Your task to perform on an android device: Search for sushi restaurants on Maps Image 0: 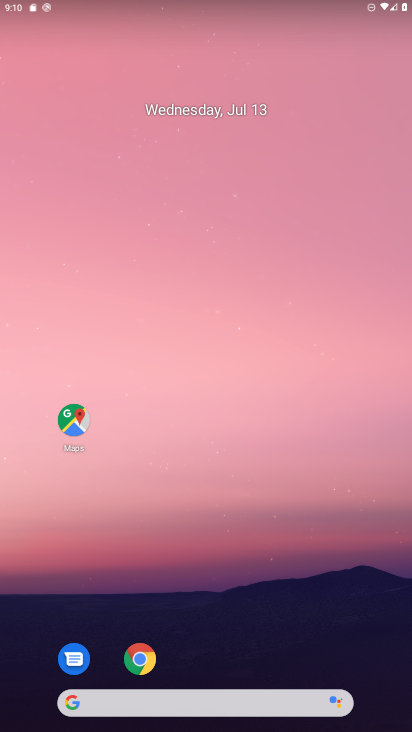
Step 0: drag from (203, 646) to (197, 157)
Your task to perform on an android device: Search for sushi restaurants on Maps Image 1: 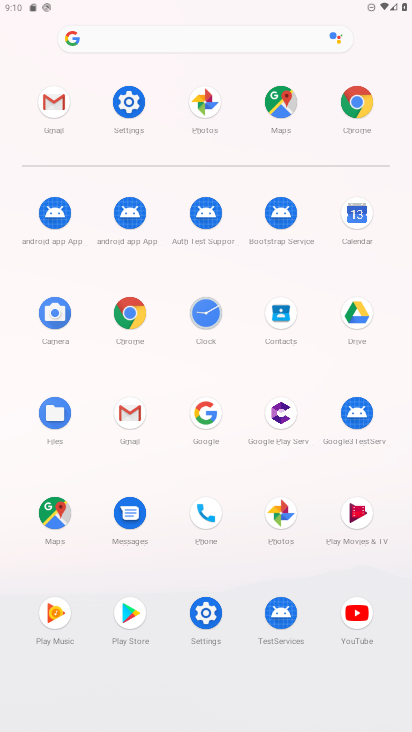
Step 1: click (54, 514)
Your task to perform on an android device: Search for sushi restaurants on Maps Image 2: 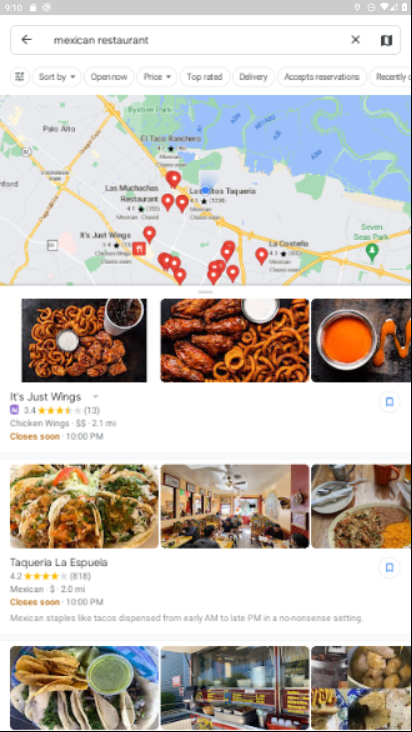
Step 2: click (246, 36)
Your task to perform on an android device: Search for sushi restaurants on Maps Image 3: 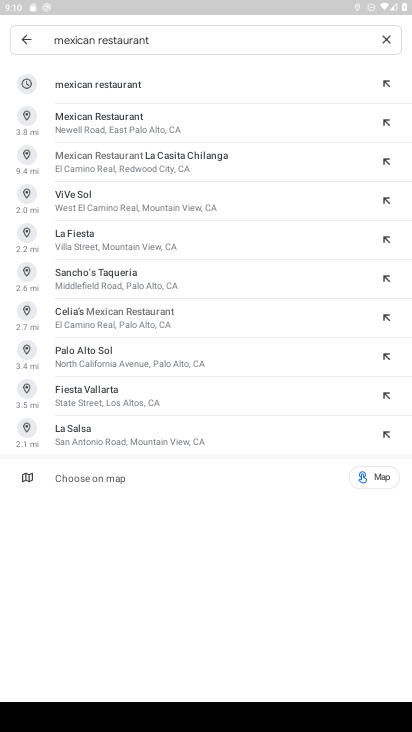
Step 3: click (381, 37)
Your task to perform on an android device: Search for sushi restaurants on Maps Image 4: 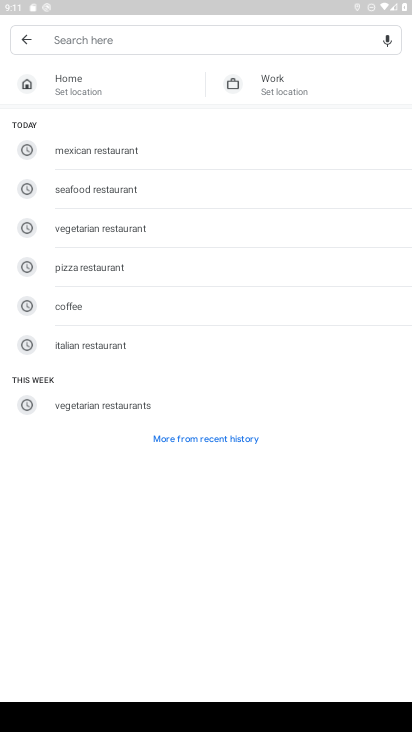
Step 4: type "sushi restaurent"
Your task to perform on an android device: Search for sushi restaurants on Maps Image 5: 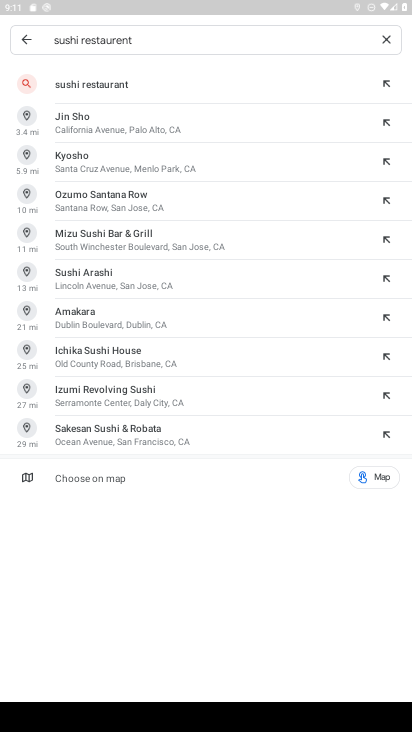
Step 5: click (115, 87)
Your task to perform on an android device: Search for sushi restaurants on Maps Image 6: 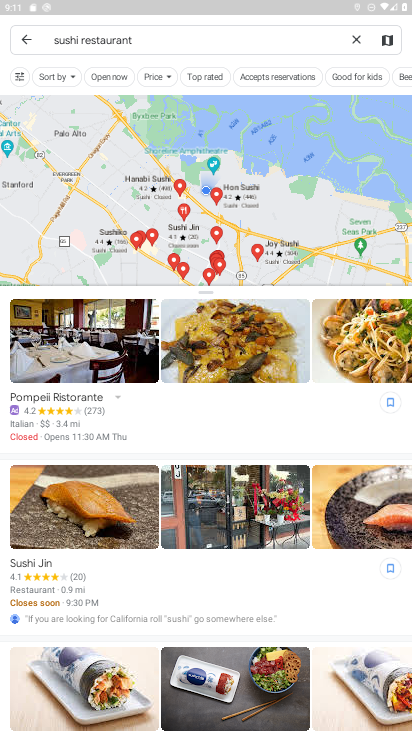
Step 6: task complete